Your task to perform on an android device: change your default location settings in chrome Image 0: 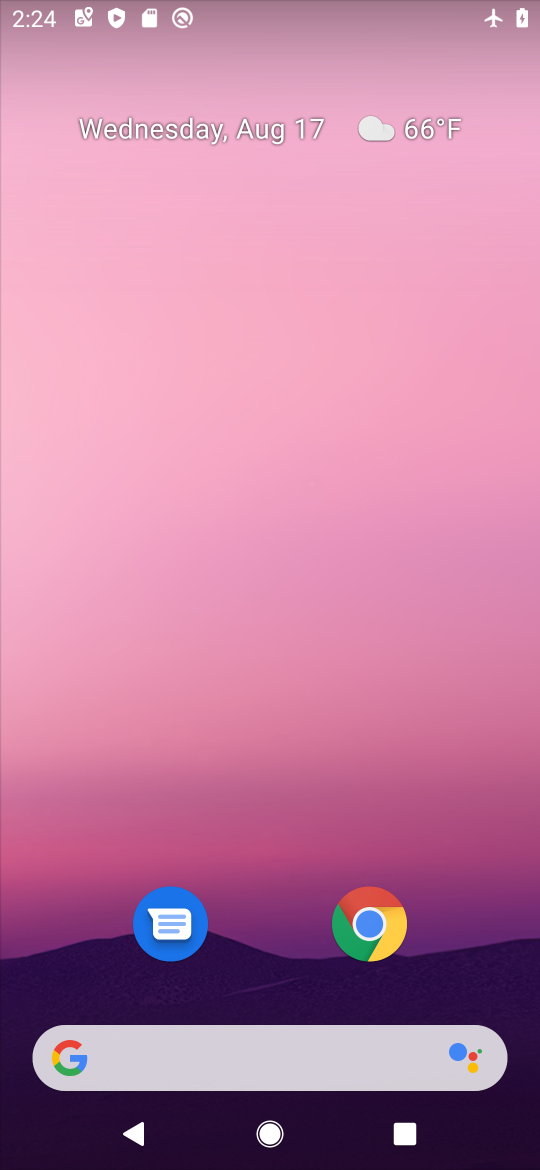
Step 0: click (370, 925)
Your task to perform on an android device: change your default location settings in chrome Image 1: 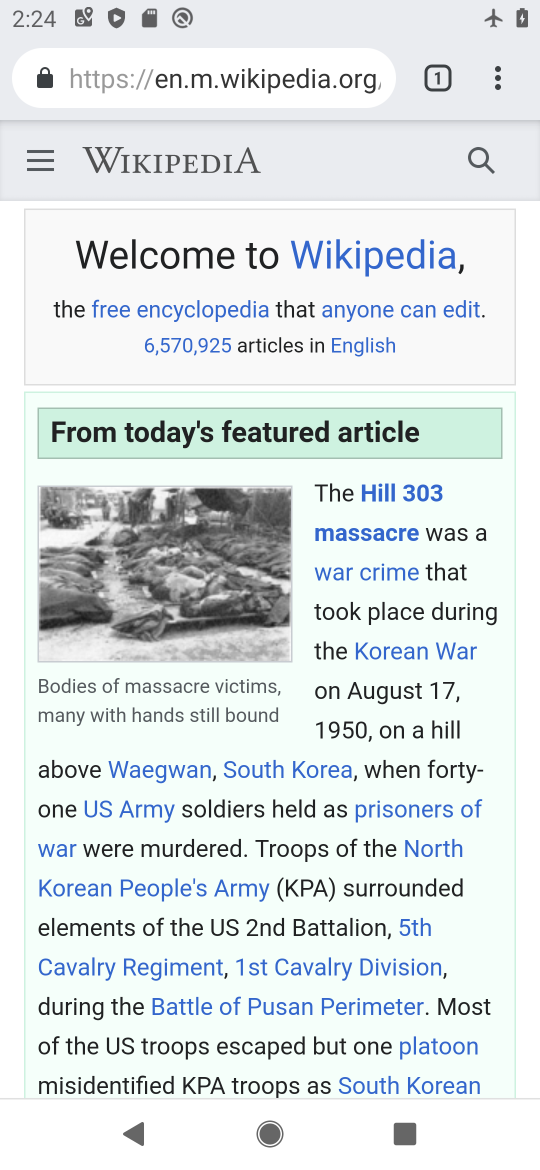
Step 1: click (511, 83)
Your task to perform on an android device: change your default location settings in chrome Image 2: 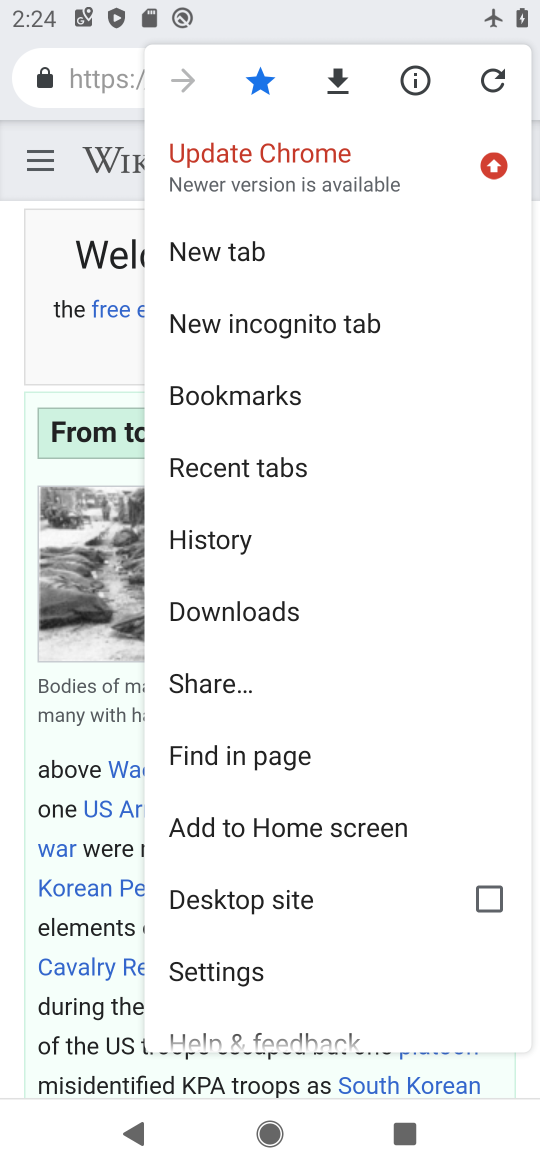
Step 2: click (239, 977)
Your task to perform on an android device: change your default location settings in chrome Image 3: 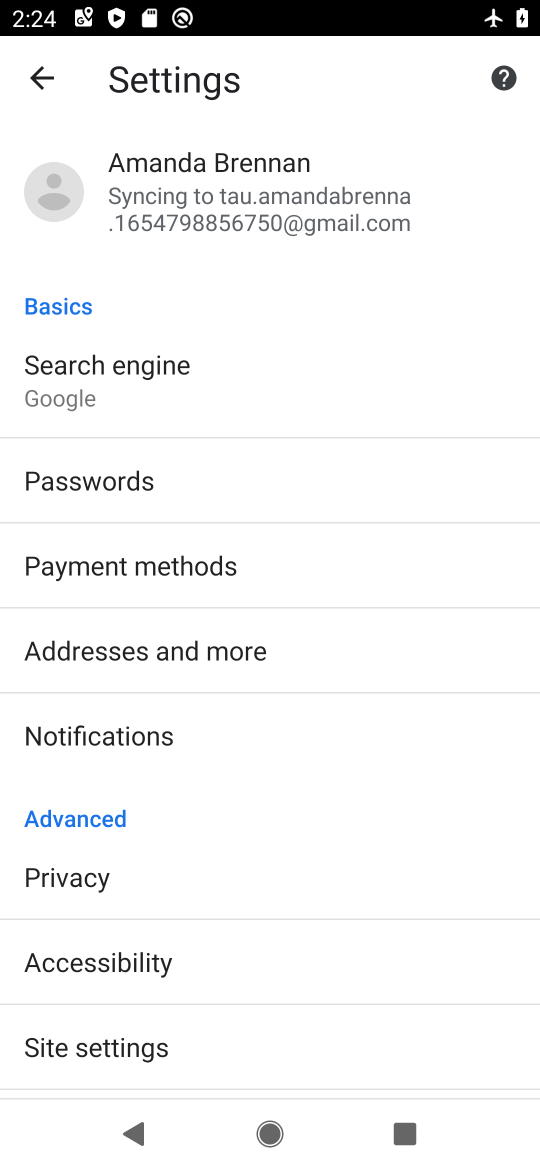
Step 3: click (106, 1043)
Your task to perform on an android device: change your default location settings in chrome Image 4: 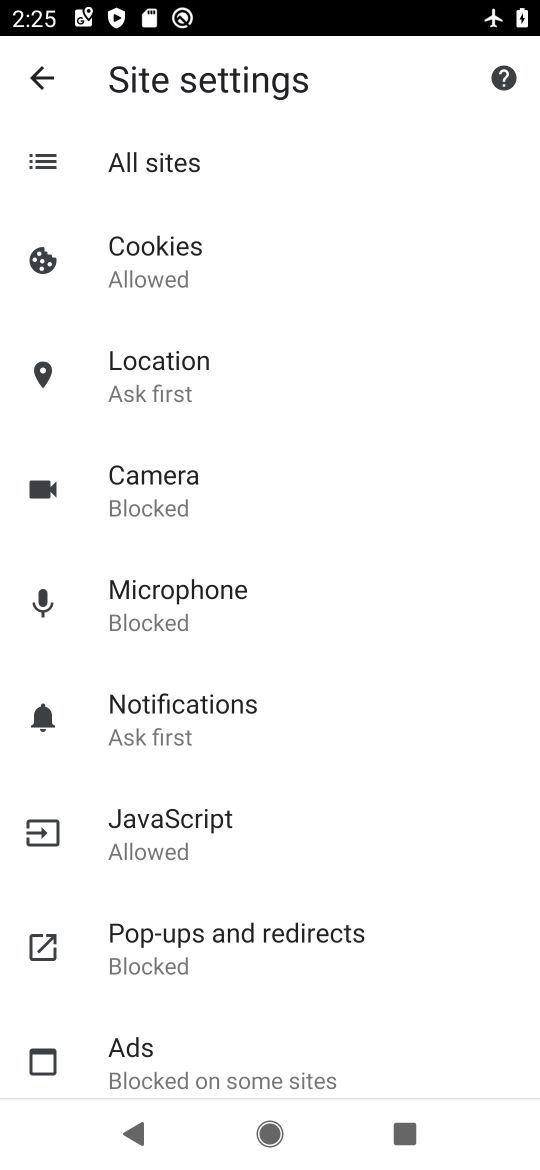
Step 4: click (197, 394)
Your task to perform on an android device: change your default location settings in chrome Image 5: 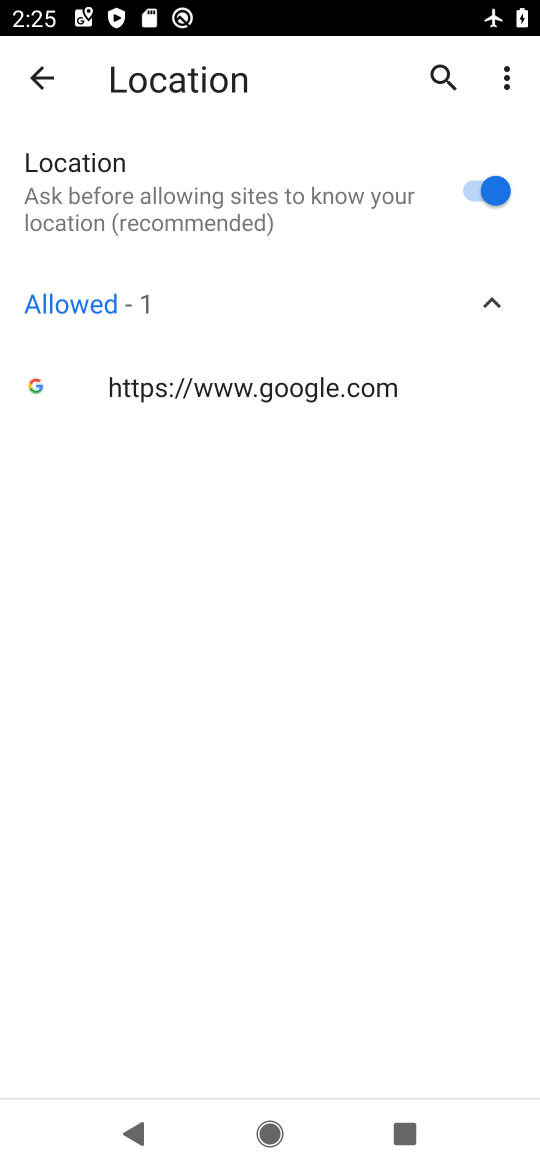
Step 5: click (499, 190)
Your task to perform on an android device: change your default location settings in chrome Image 6: 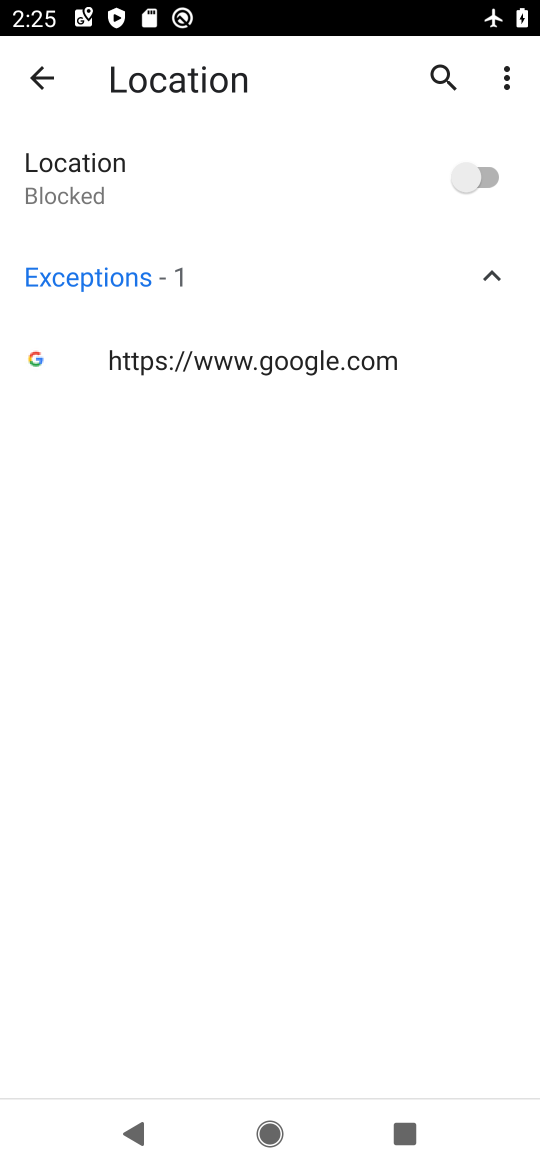
Step 6: task complete